Your task to perform on an android device: toggle notification dots Image 0: 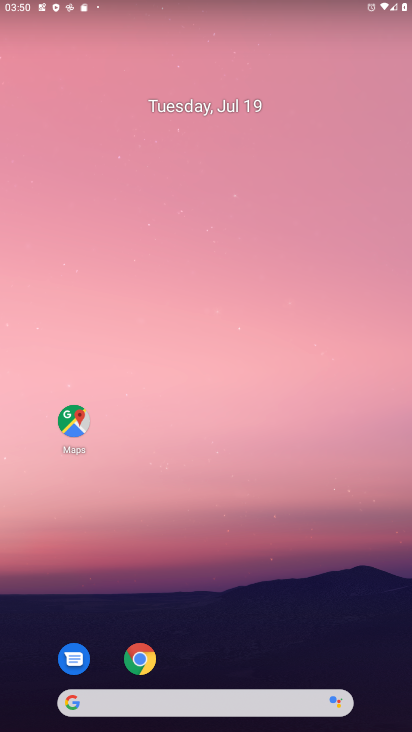
Step 0: drag from (301, 654) to (322, 132)
Your task to perform on an android device: toggle notification dots Image 1: 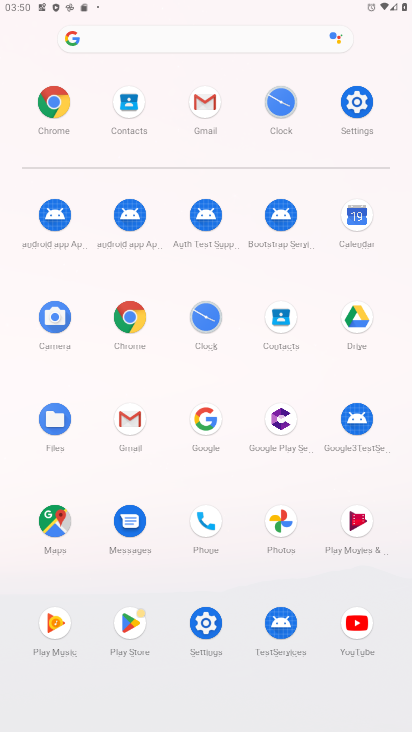
Step 1: click (203, 622)
Your task to perform on an android device: toggle notification dots Image 2: 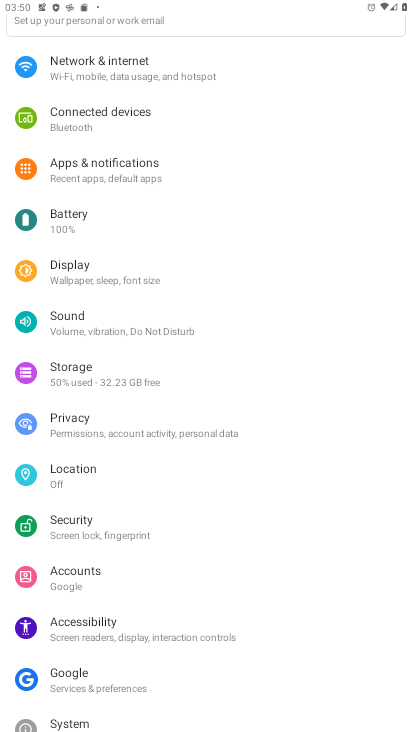
Step 2: click (68, 174)
Your task to perform on an android device: toggle notification dots Image 3: 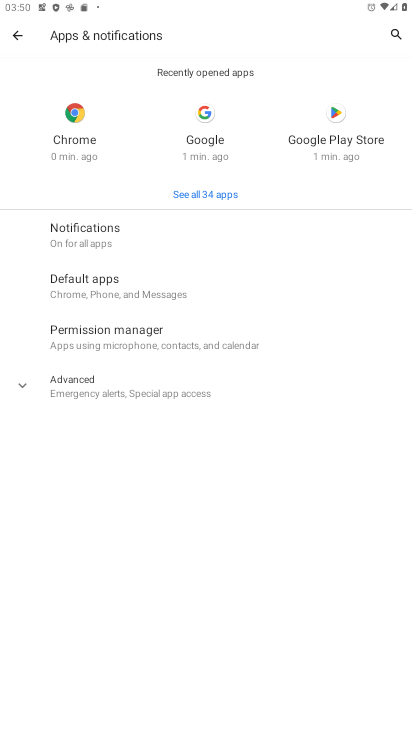
Step 3: click (53, 249)
Your task to perform on an android device: toggle notification dots Image 4: 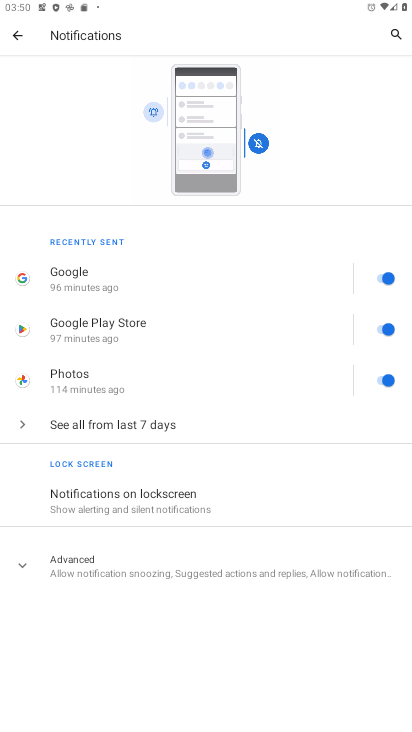
Step 4: click (64, 581)
Your task to perform on an android device: toggle notification dots Image 5: 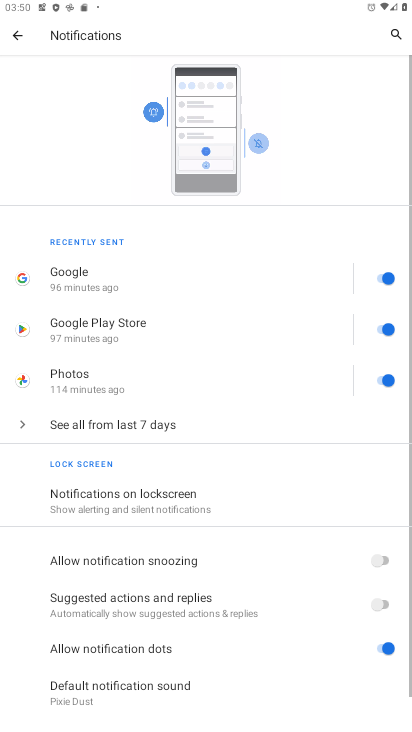
Step 5: drag from (73, 621) to (42, 259)
Your task to perform on an android device: toggle notification dots Image 6: 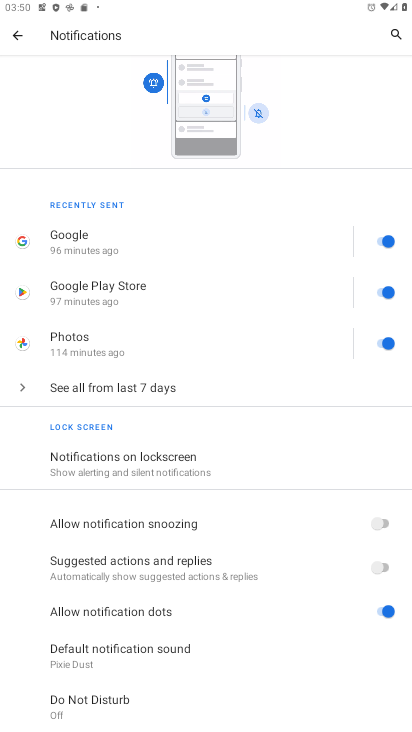
Step 6: click (123, 614)
Your task to perform on an android device: toggle notification dots Image 7: 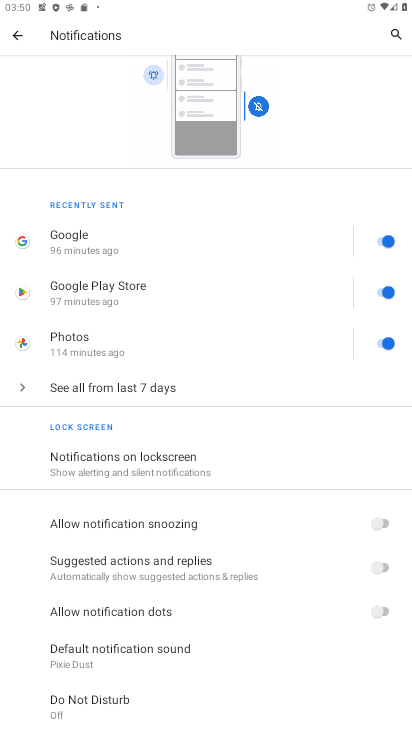
Step 7: click (151, 607)
Your task to perform on an android device: toggle notification dots Image 8: 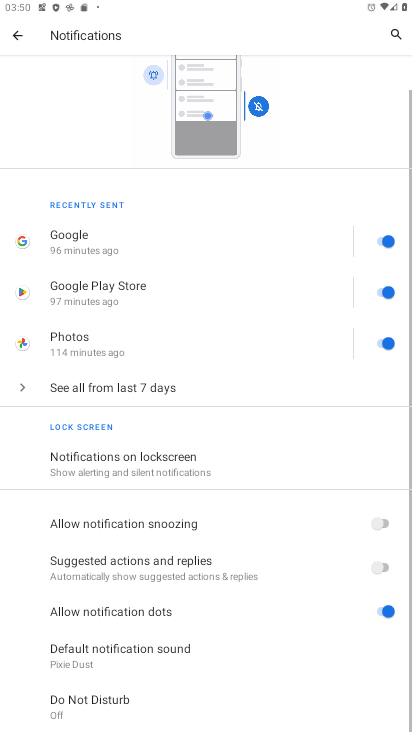
Step 8: click (151, 607)
Your task to perform on an android device: toggle notification dots Image 9: 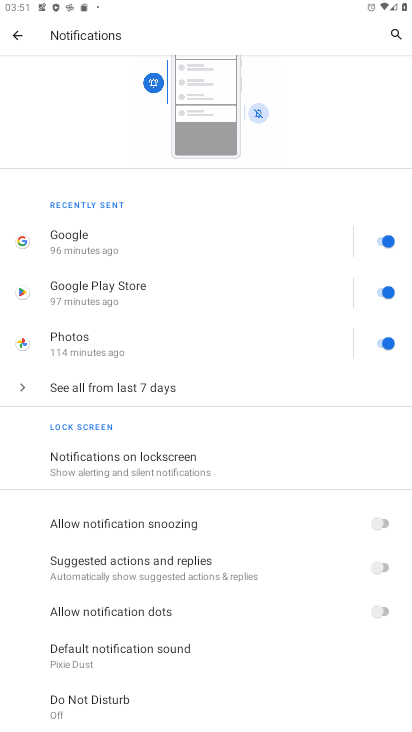
Step 9: task complete